Your task to perform on an android device: Open calendar and show me the second week of next month Image 0: 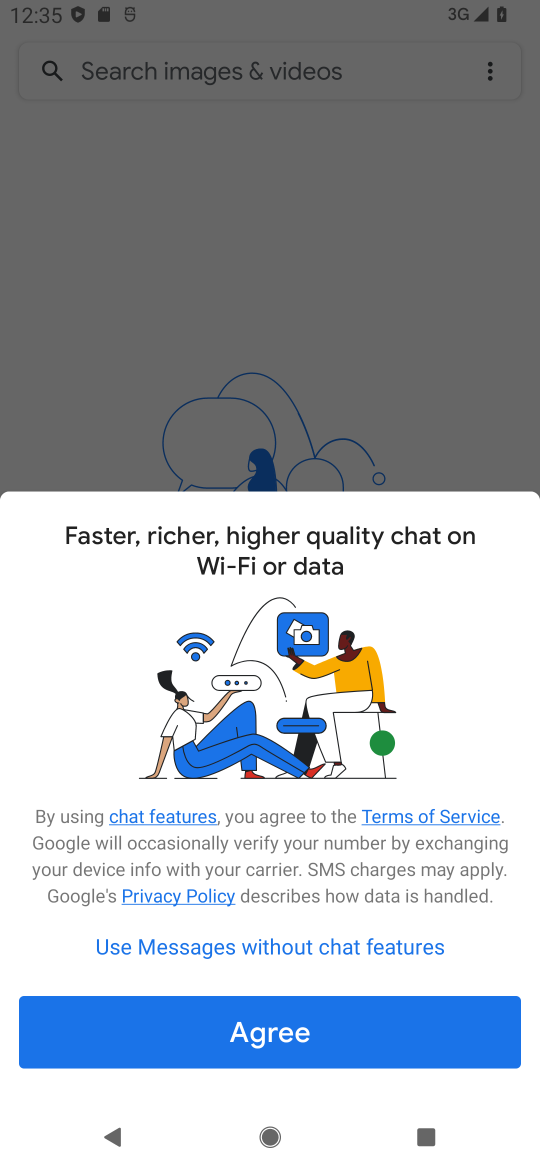
Step 0: press home button
Your task to perform on an android device: Open calendar and show me the second week of next month Image 1: 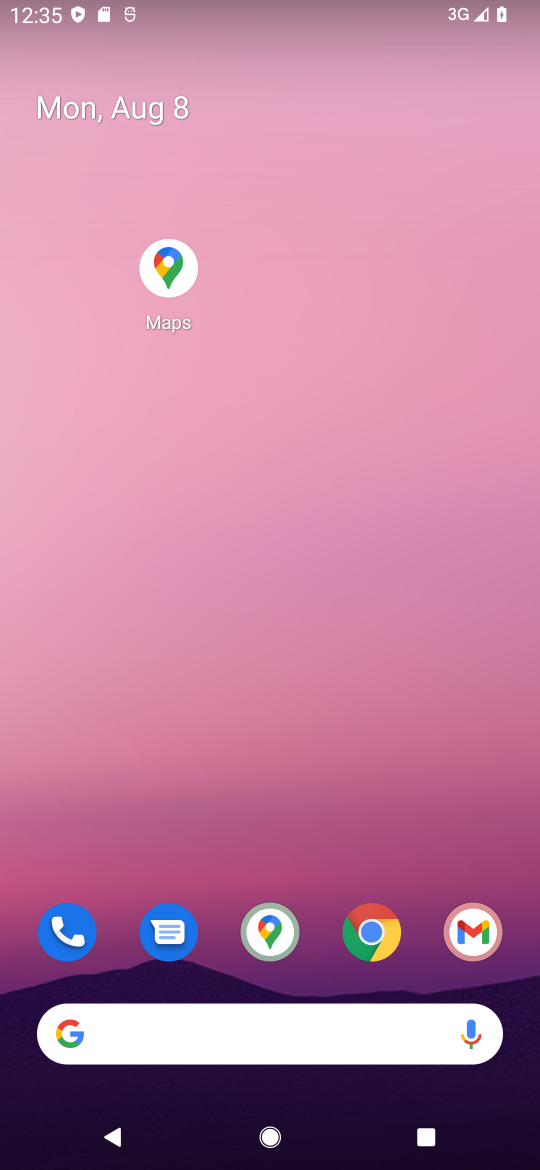
Step 1: click (131, 110)
Your task to perform on an android device: Open calendar and show me the second week of next month Image 2: 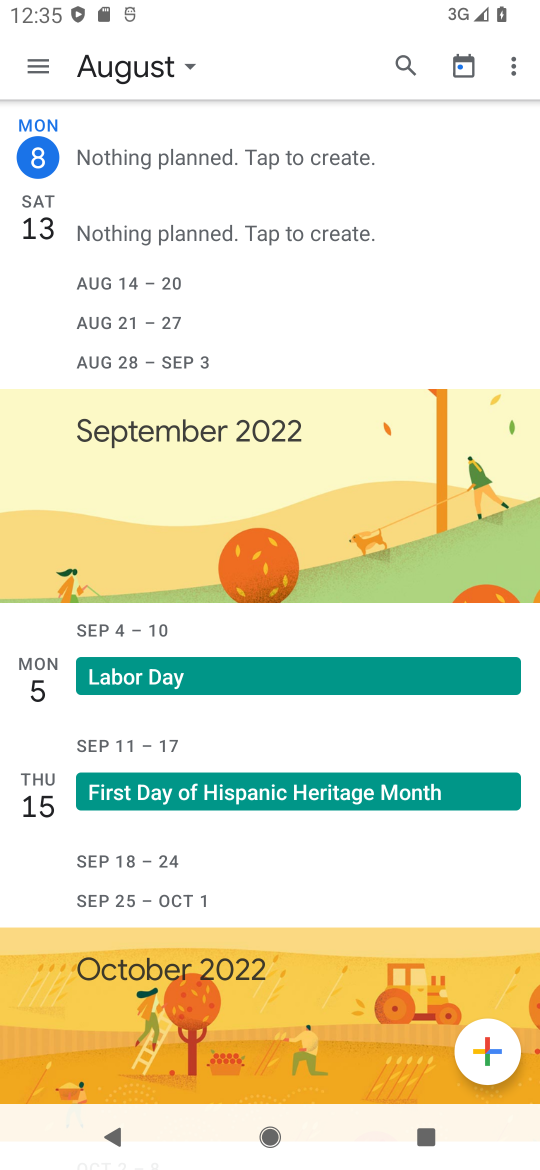
Step 2: click (99, 72)
Your task to perform on an android device: Open calendar and show me the second week of next month Image 3: 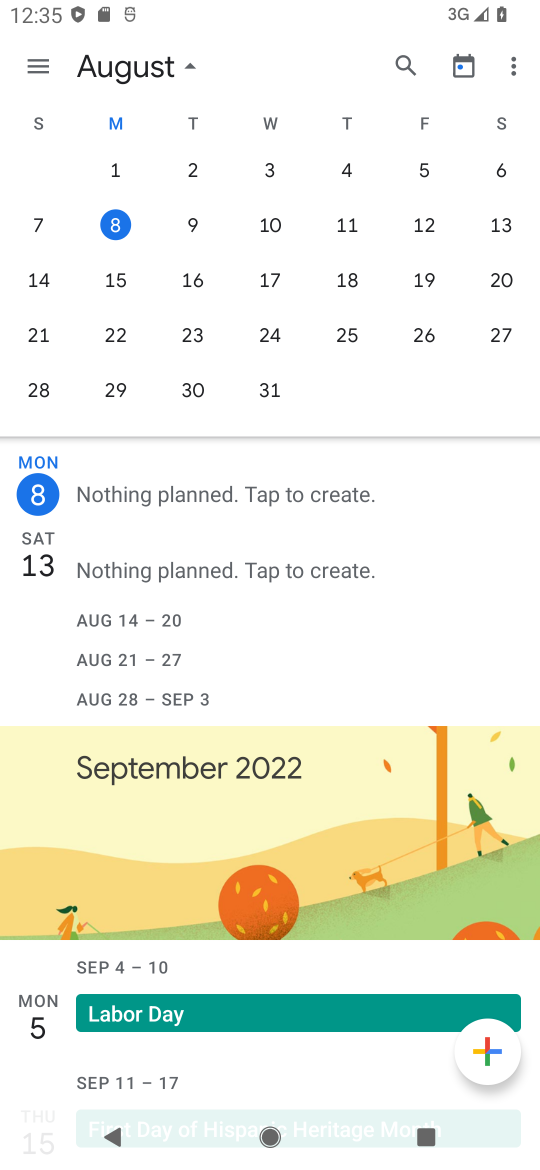
Step 3: click (118, 260)
Your task to perform on an android device: Open calendar and show me the second week of next month Image 4: 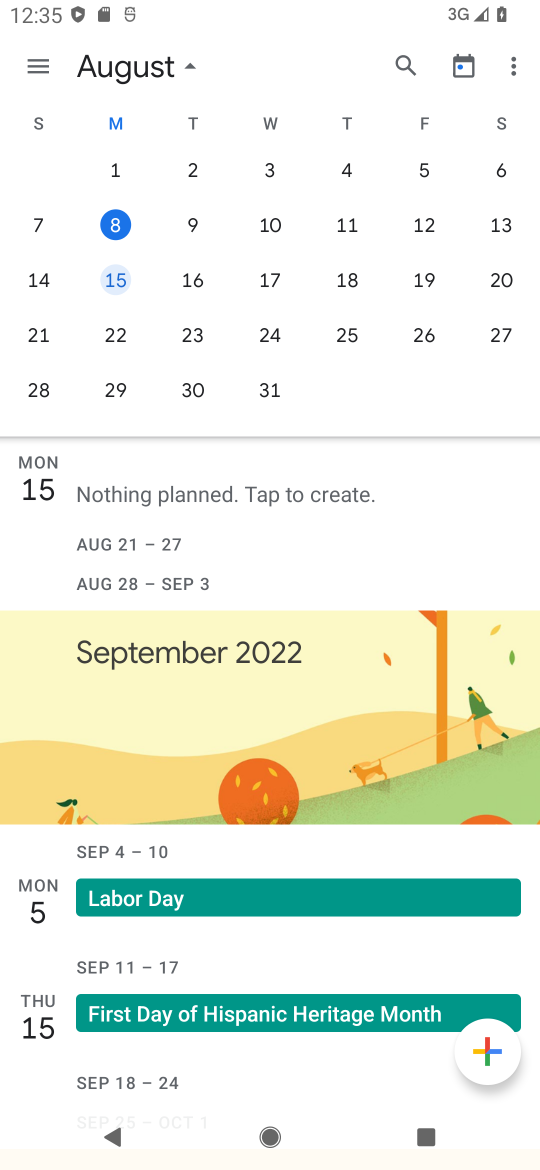
Step 4: click (121, 297)
Your task to perform on an android device: Open calendar and show me the second week of next month Image 5: 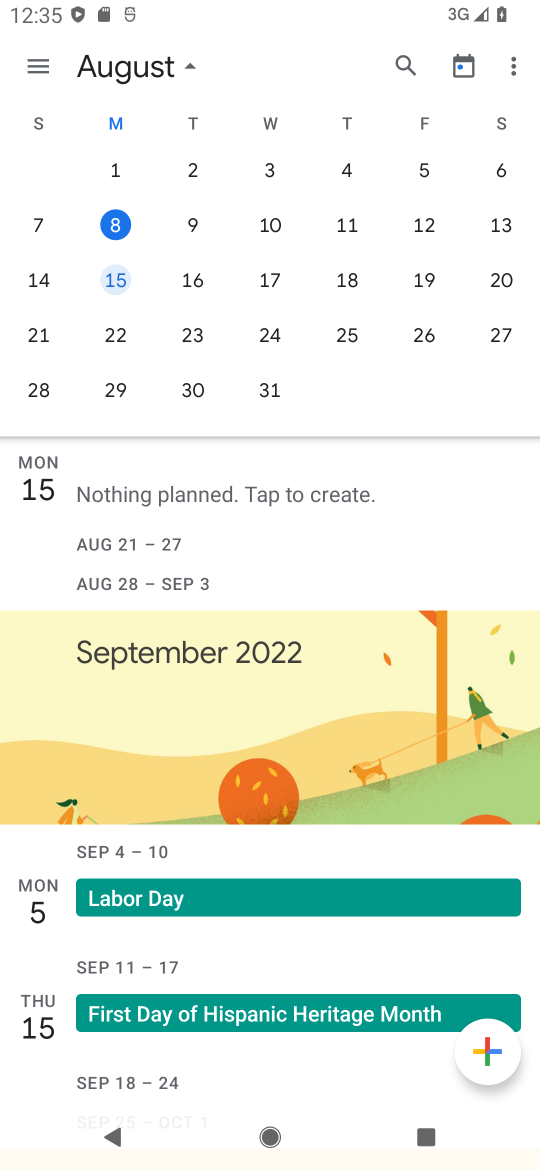
Step 5: task complete